Your task to perform on an android device: turn on javascript in the chrome app Image 0: 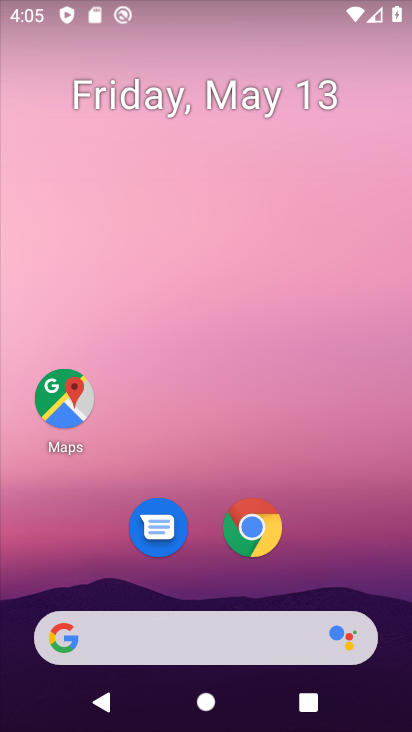
Step 0: click (264, 513)
Your task to perform on an android device: turn on javascript in the chrome app Image 1: 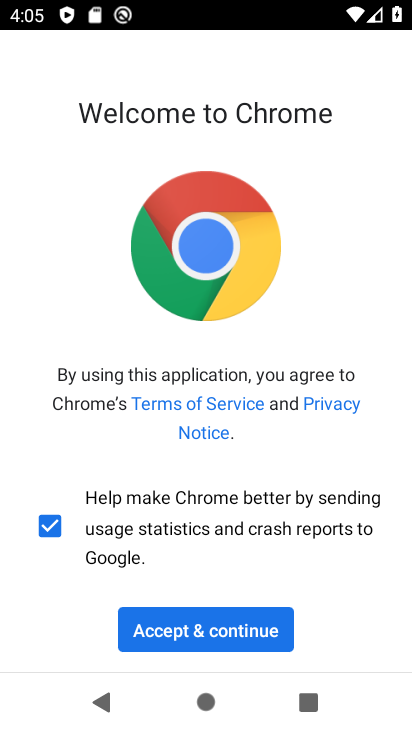
Step 1: click (253, 616)
Your task to perform on an android device: turn on javascript in the chrome app Image 2: 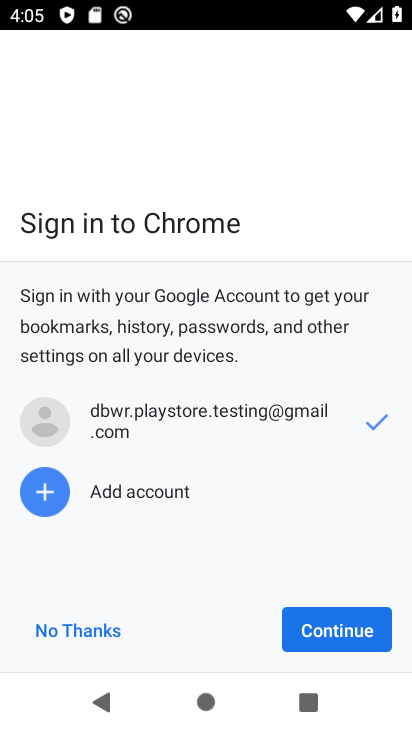
Step 2: click (307, 627)
Your task to perform on an android device: turn on javascript in the chrome app Image 3: 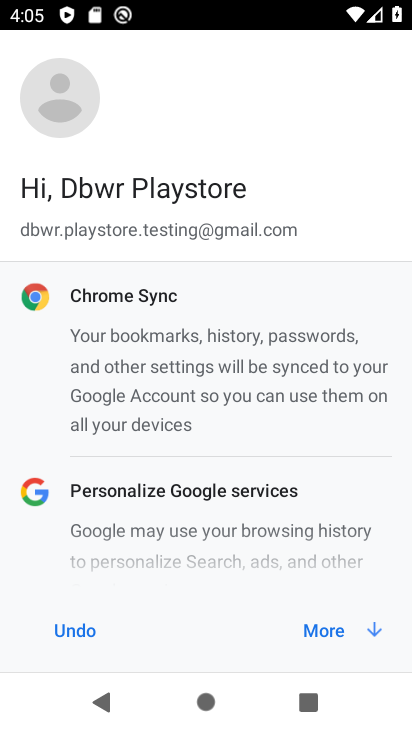
Step 3: click (311, 612)
Your task to perform on an android device: turn on javascript in the chrome app Image 4: 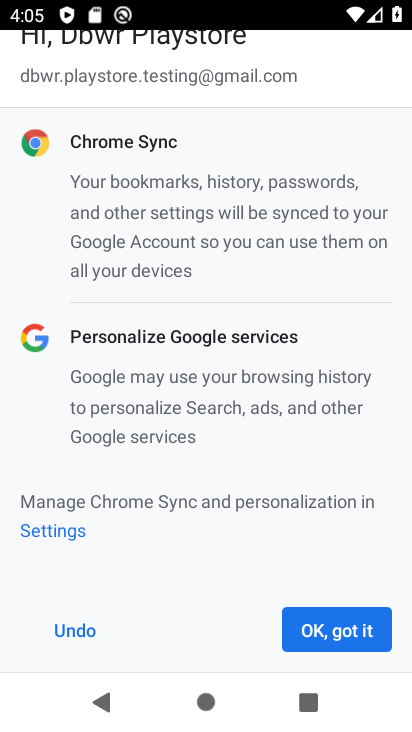
Step 4: click (311, 612)
Your task to perform on an android device: turn on javascript in the chrome app Image 5: 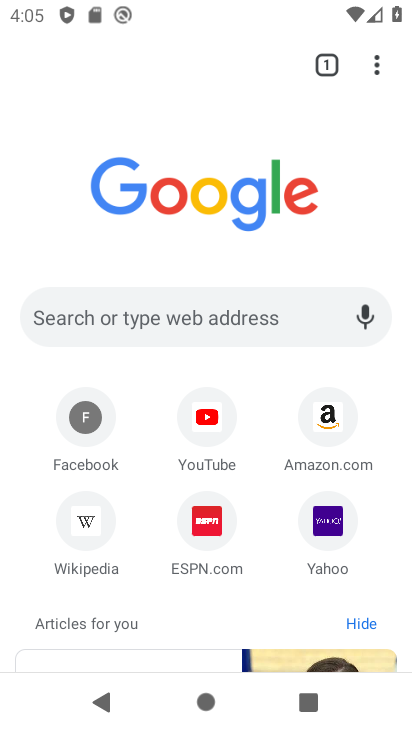
Step 5: click (375, 81)
Your task to perform on an android device: turn on javascript in the chrome app Image 6: 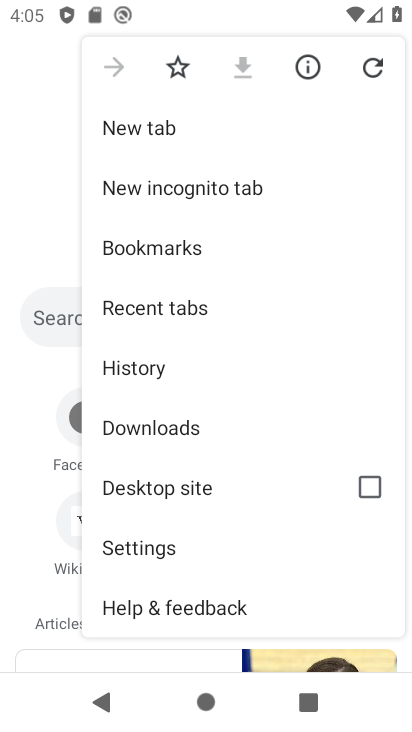
Step 6: click (233, 541)
Your task to perform on an android device: turn on javascript in the chrome app Image 7: 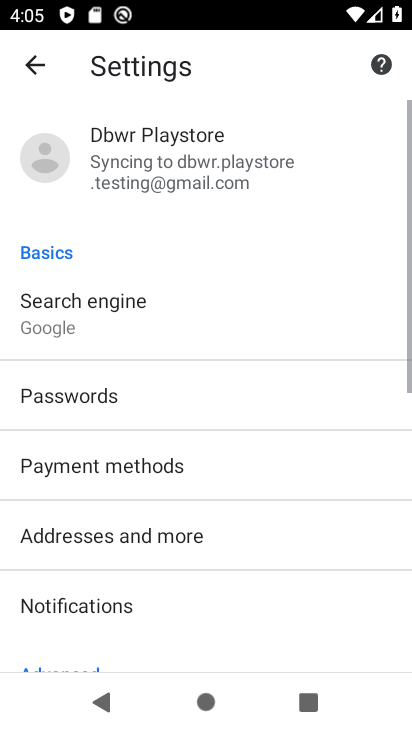
Step 7: drag from (219, 645) to (324, 167)
Your task to perform on an android device: turn on javascript in the chrome app Image 8: 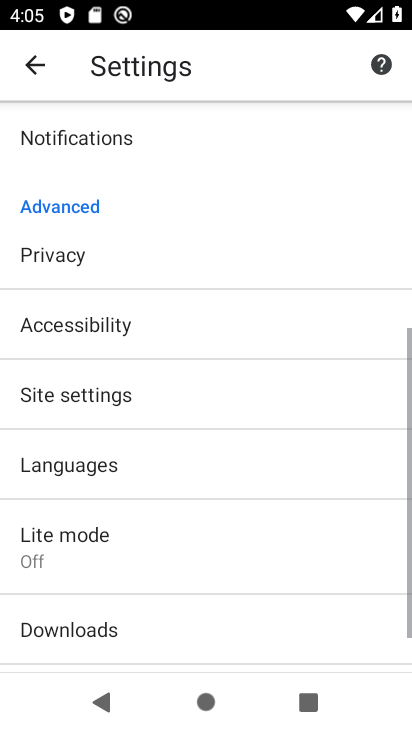
Step 8: click (236, 401)
Your task to perform on an android device: turn on javascript in the chrome app Image 9: 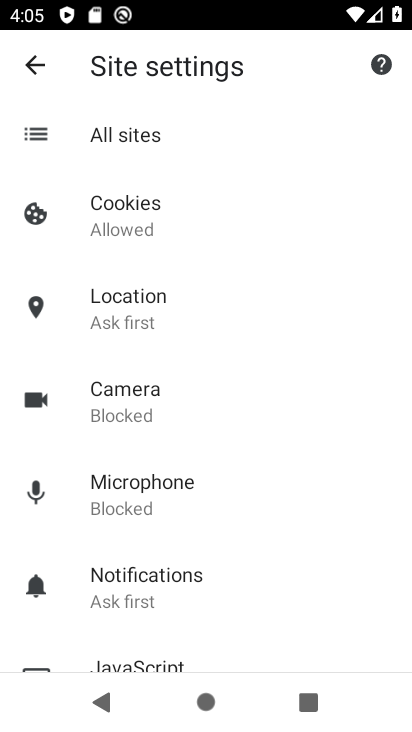
Step 9: click (147, 651)
Your task to perform on an android device: turn on javascript in the chrome app Image 10: 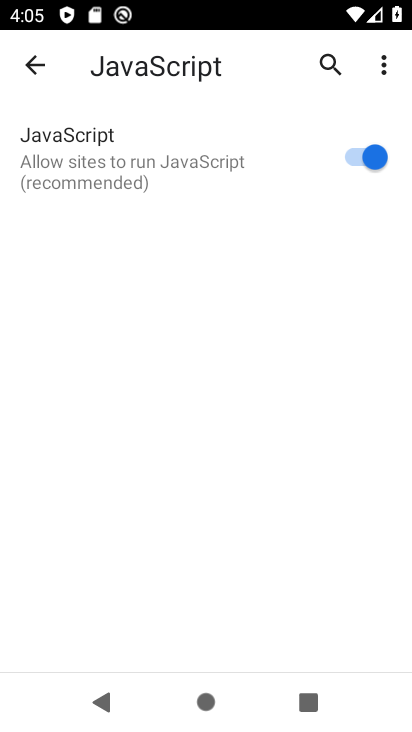
Step 10: task complete